Your task to perform on an android device: change the upload size in google photos Image 0: 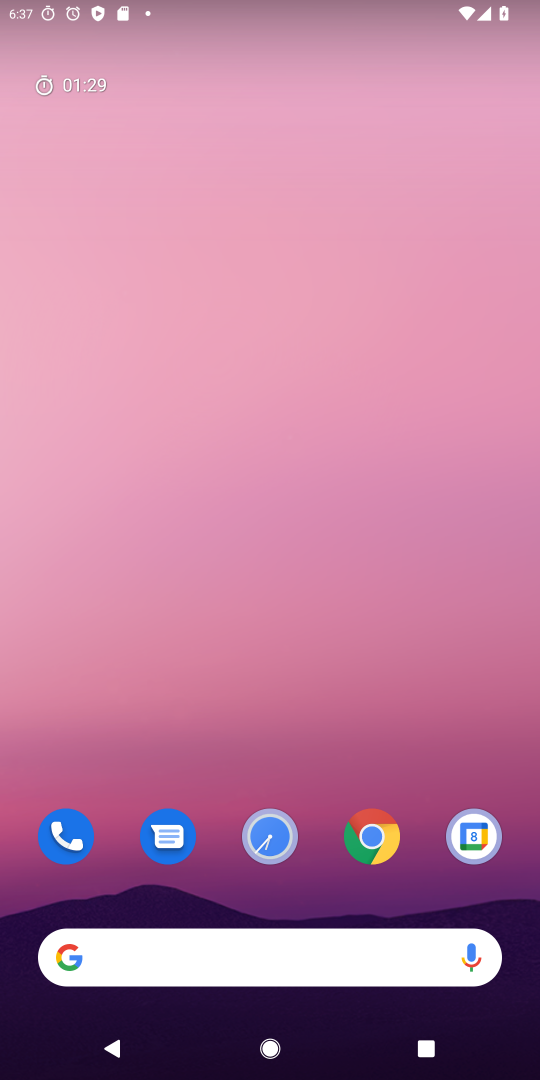
Step 0: drag from (219, 708) to (293, 88)
Your task to perform on an android device: change the upload size in google photos Image 1: 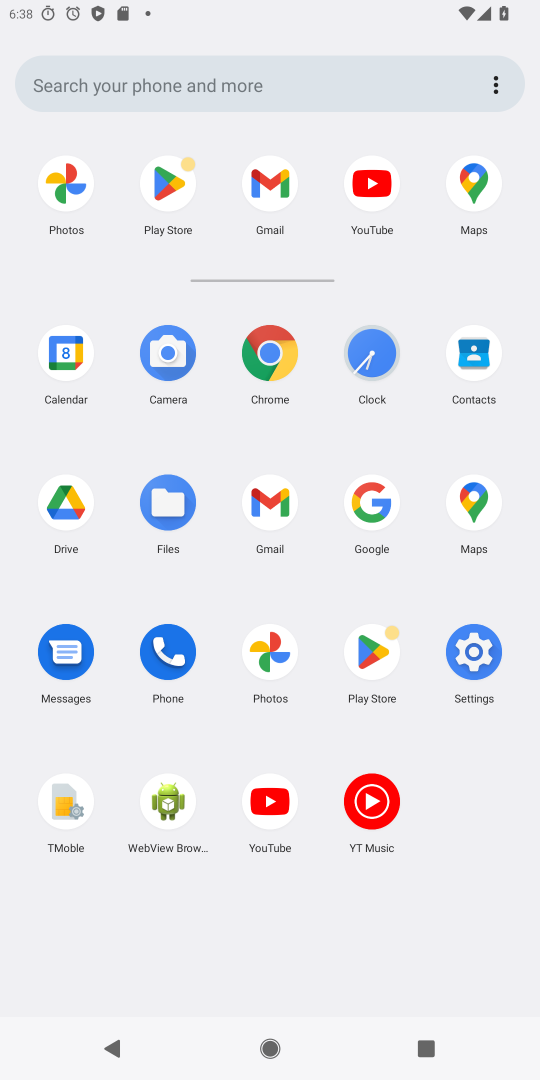
Step 1: click (277, 674)
Your task to perform on an android device: change the upload size in google photos Image 2: 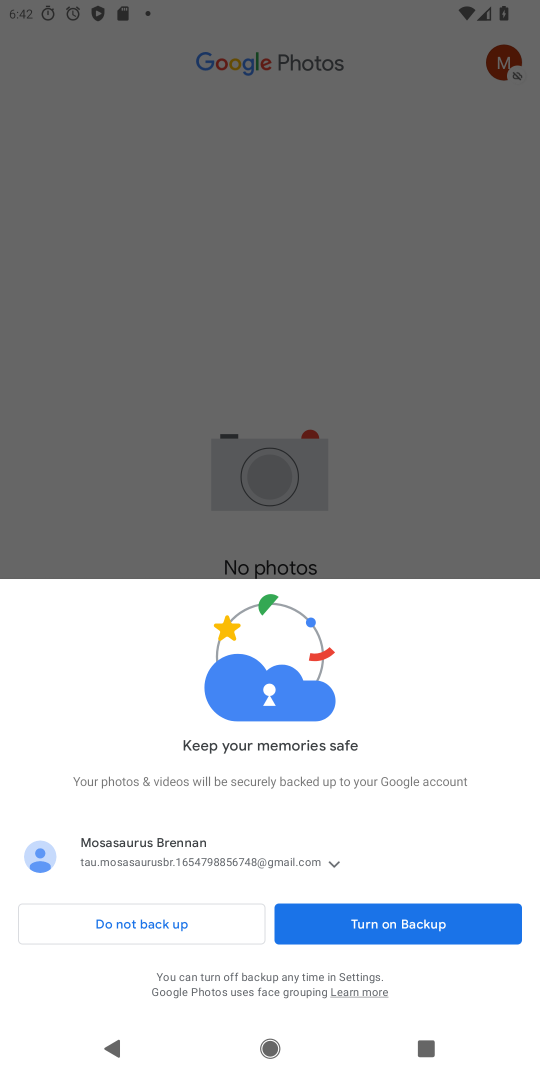
Step 2: click (455, 926)
Your task to perform on an android device: change the upload size in google photos Image 3: 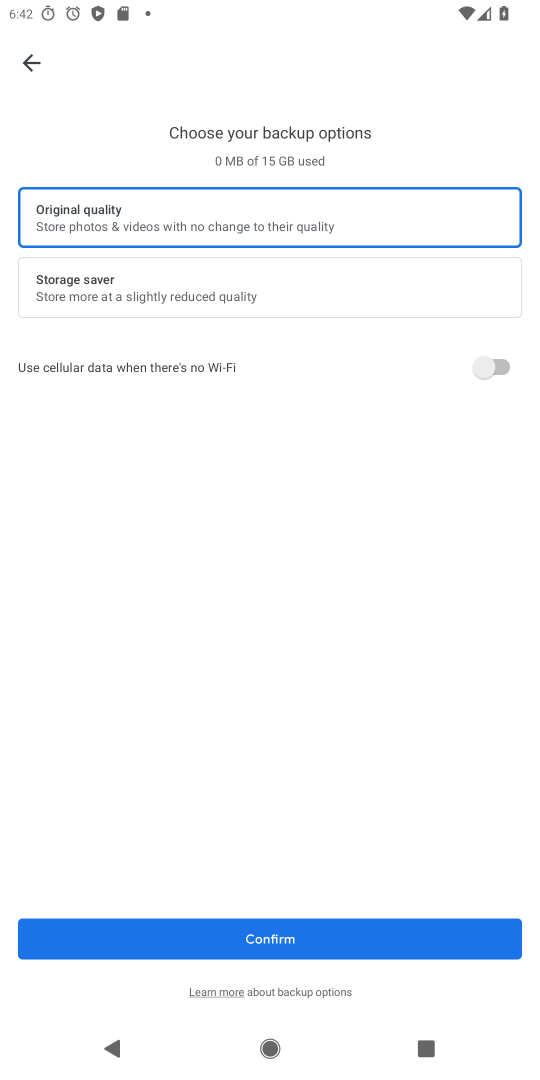
Step 3: click (249, 316)
Your task to perform on an android device: change the upload size in google photos Image 4: 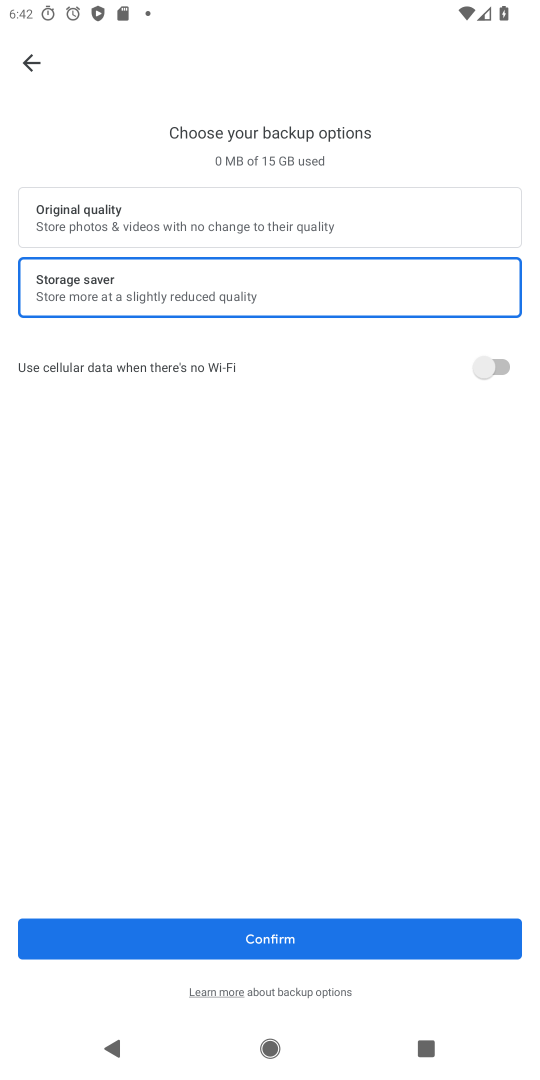
Step 4: press home button
Your task to perform on an android device: change the upload size in google photos Image 5: 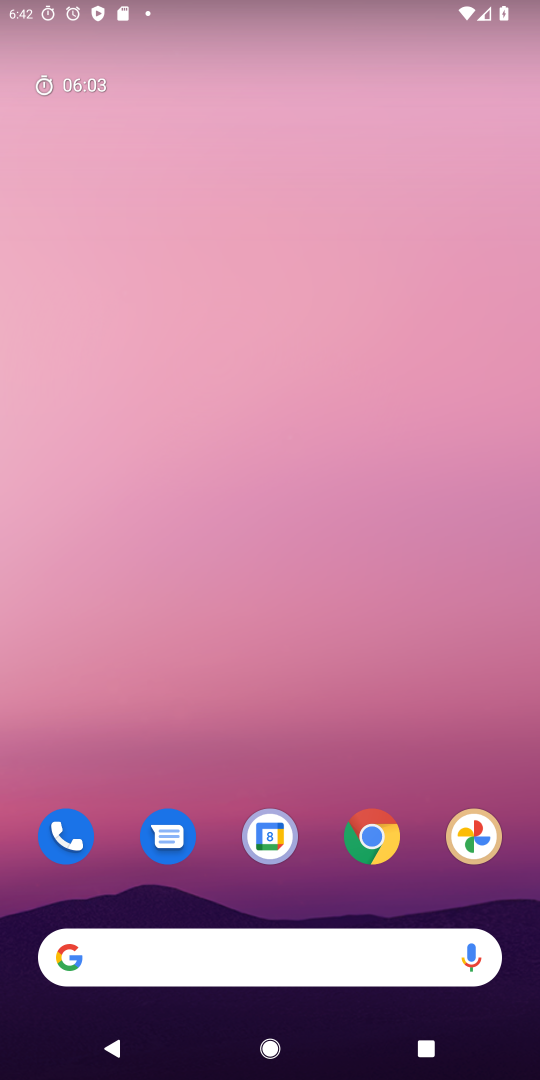
Step 5: drag from (353, 686) to (395, 2)
Your task to perform on an android device: change the upload size in google photos Image 6: 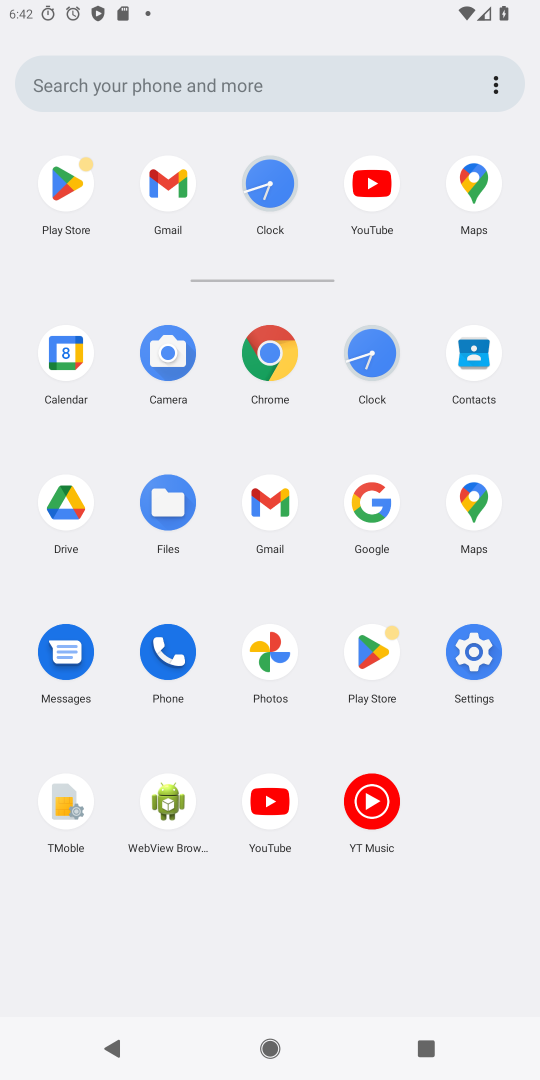
Step 6: click (269, 646)
Your task to perform on an android device: change the upload size in google photos Image 7: 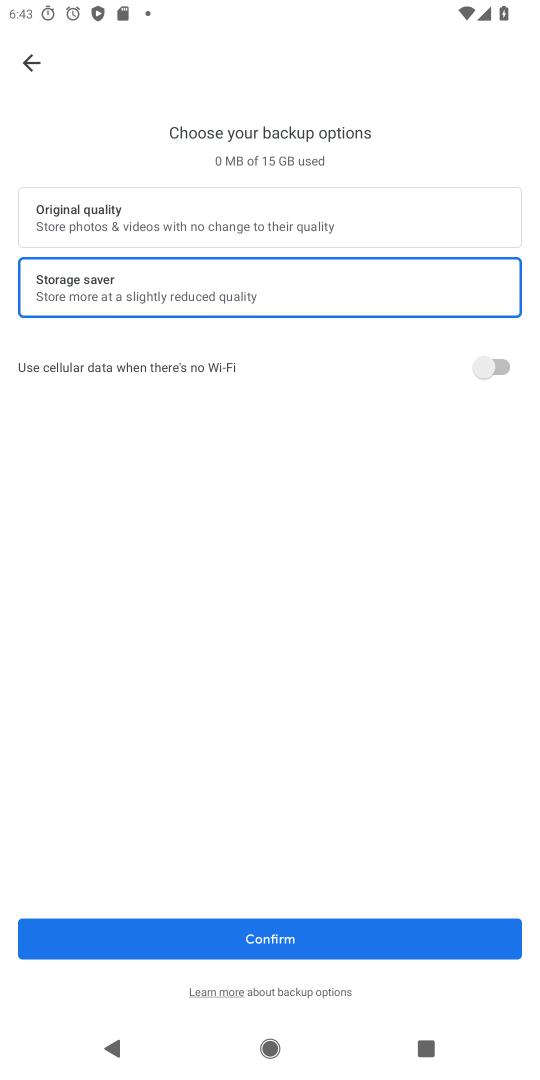
Step 7: press back button
Your task to perform on an android device: change the upload size in google photos Image 8: 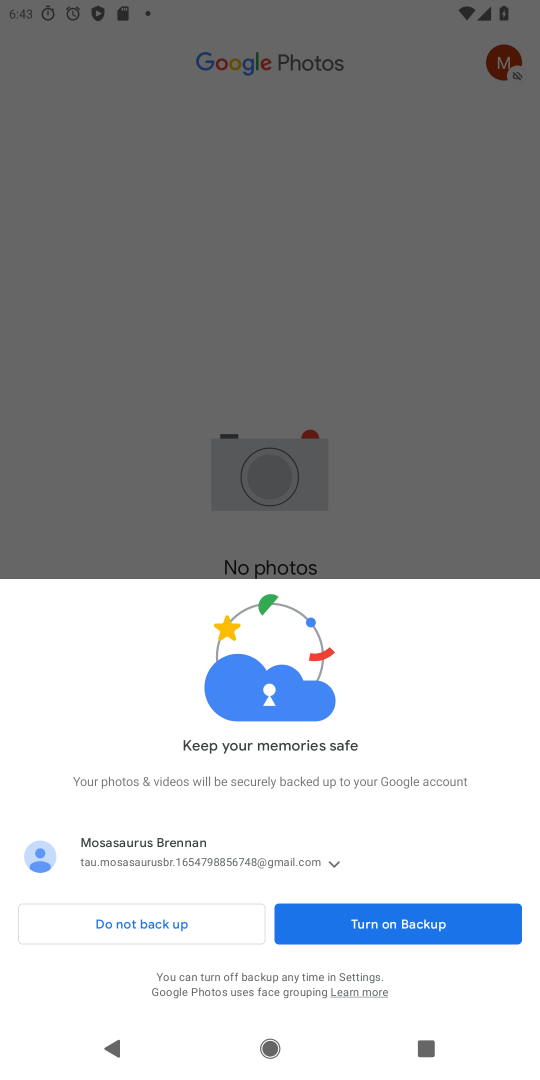
Step 8: click (430, 920)
Your task to perform on an android device: change the upload size in google photos Image 9: 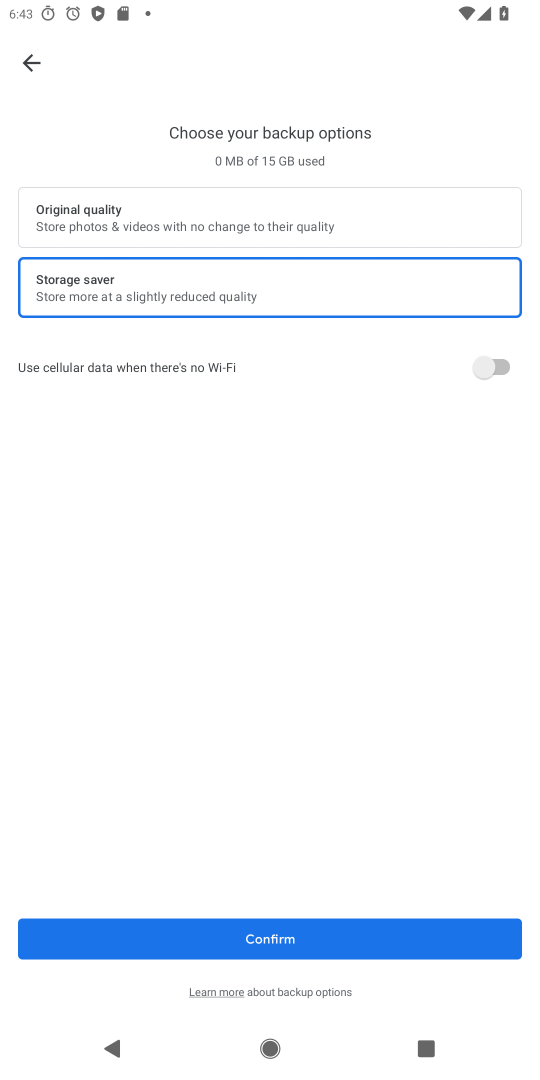
Step 9: click (316, 934)
Your task to perform on an android device: change the upload size in google photos Image 10: 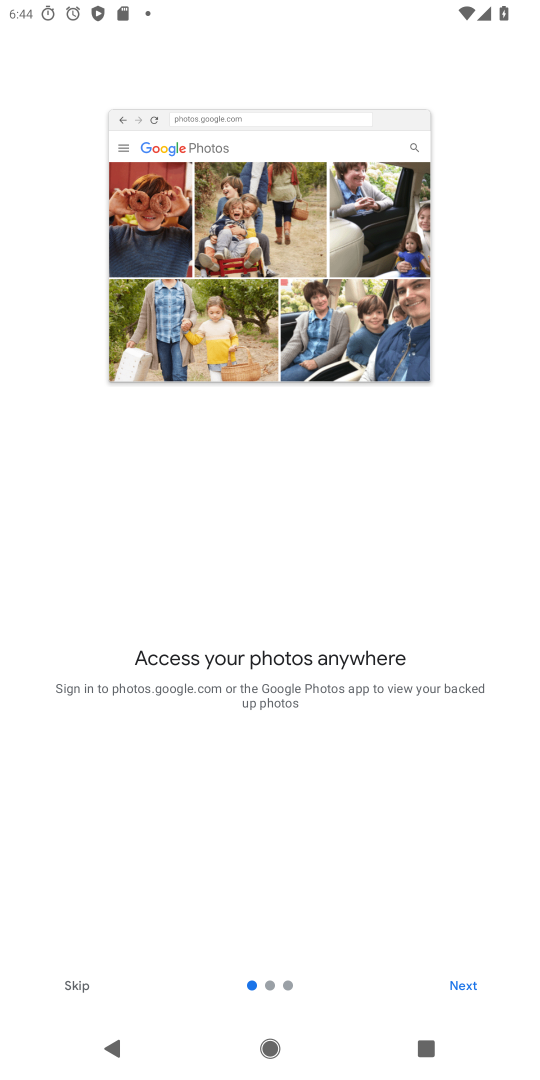
Step 10: click (85, 975)
Your task to perform on an android device: change the upload size in google photos Image 11: 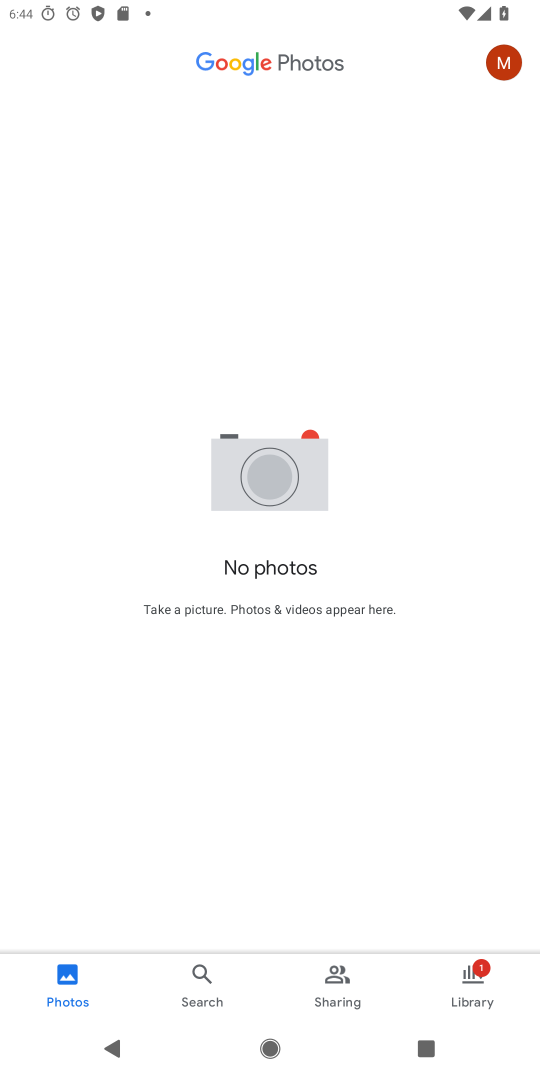
Step 11: click (499, 61)
Your task to perform on an android device: change the upload size in google photos Image 12: 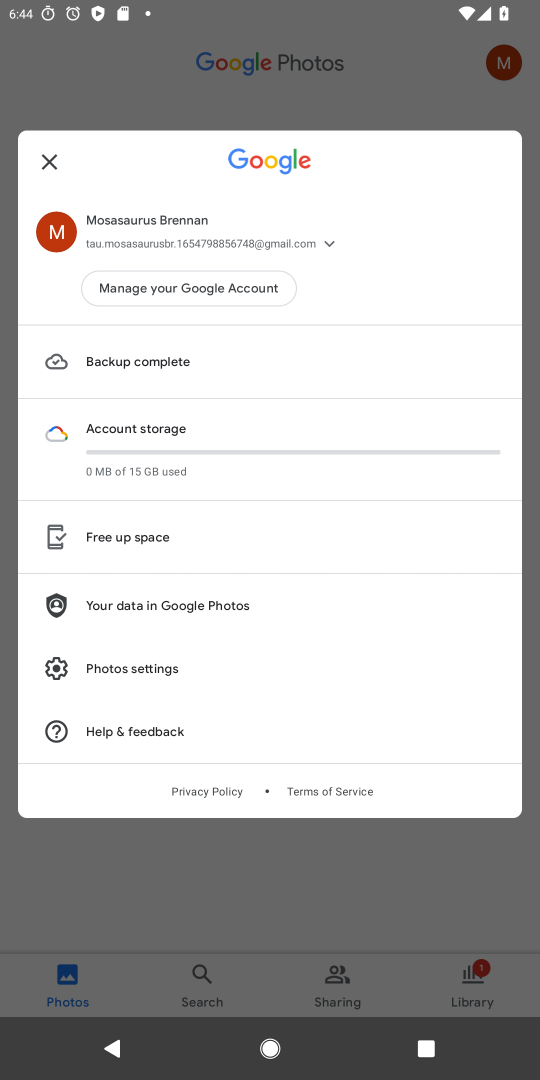
Step 12: click (163, 681)
Your task to perform on an android device: change the upload size in google photos Image 13: 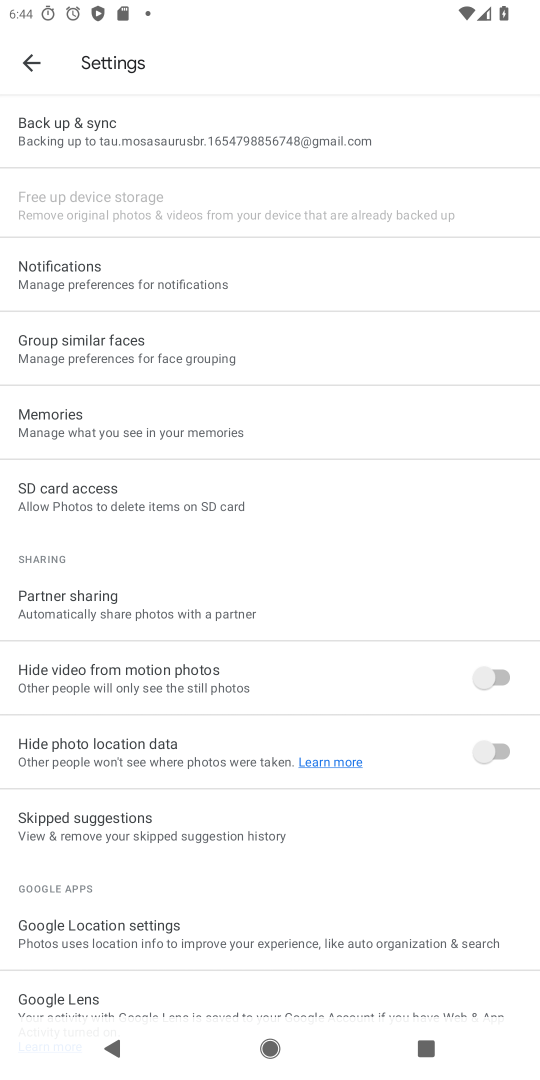
Step 13: drag from (198, 838) to (221, 892)
Your task to perform on an android device: change the upload size in google photos Image 14: 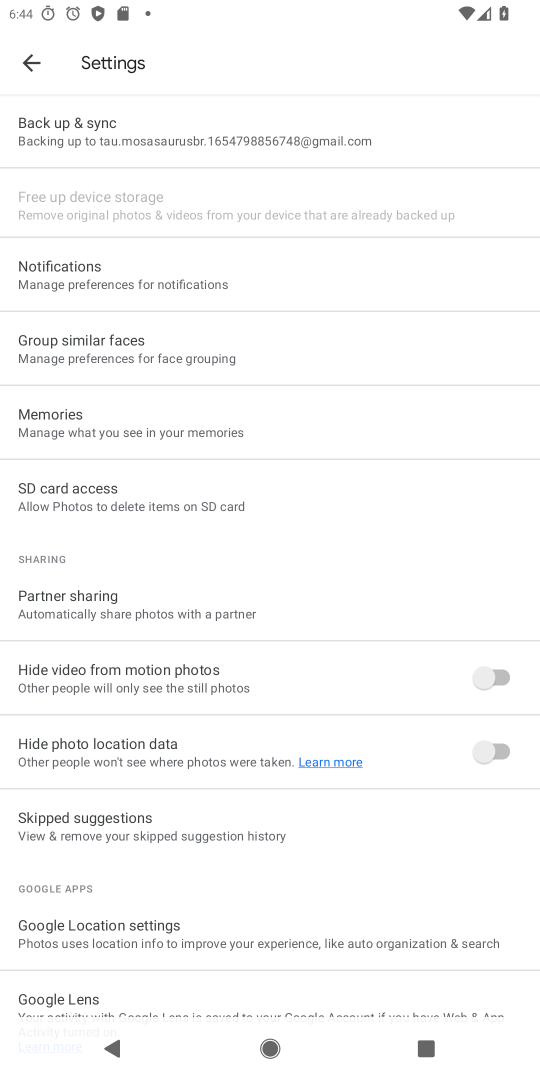
Step 14: click (164, 148)
Your task to perform on an android device: change the upload size in google photos Image 15: 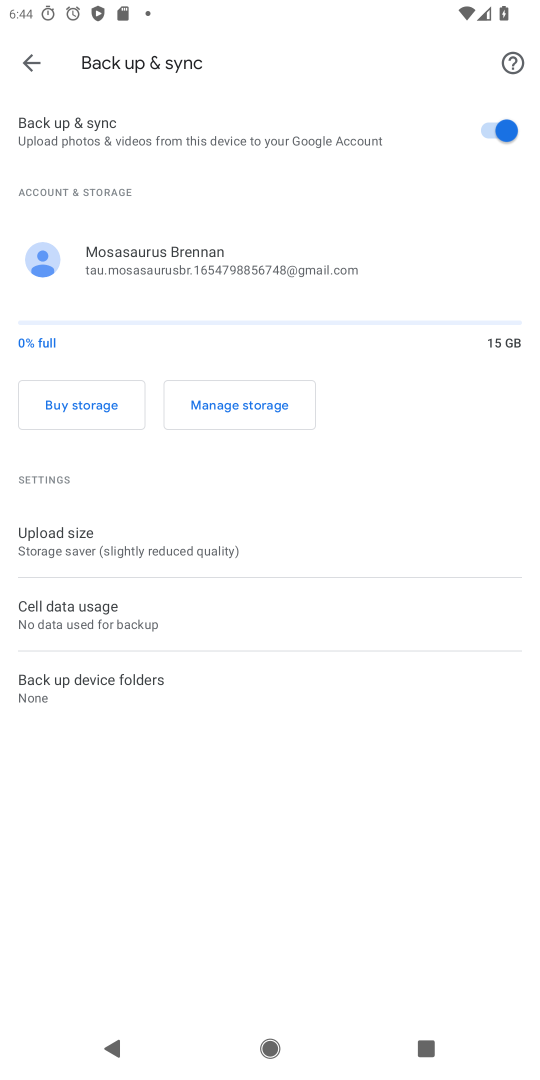
Step 15: click (159, 555)
Your task to perform on an android device: change the upload size in google photos Image 16: 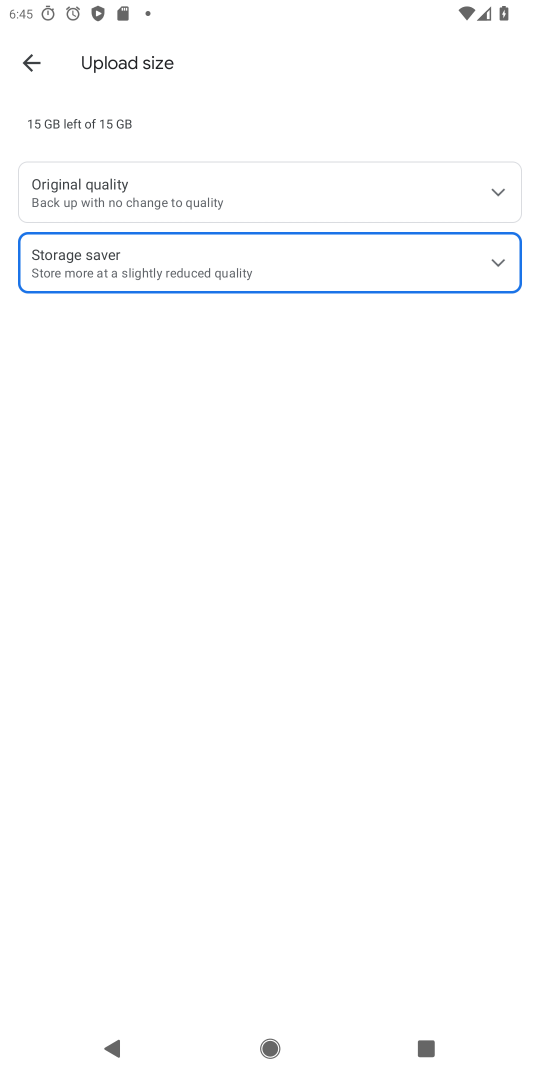
Step 16: click (216, 202)
Your task to perform on an android device: change the upload size in google photos Image 17: 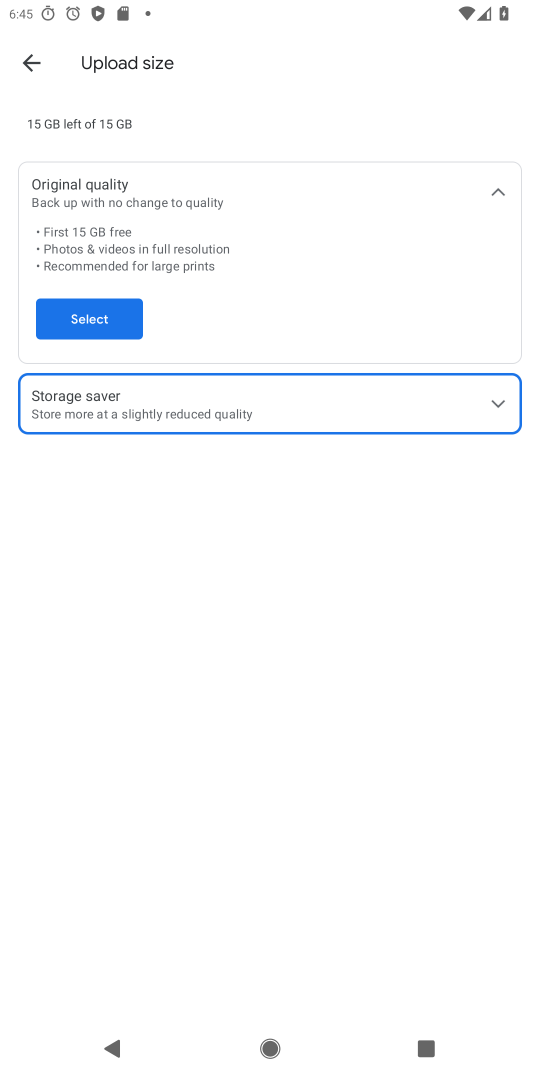
Step 17: click (116, 331)
Your task to perform on an android device: change the upload size in google photos Image 18: 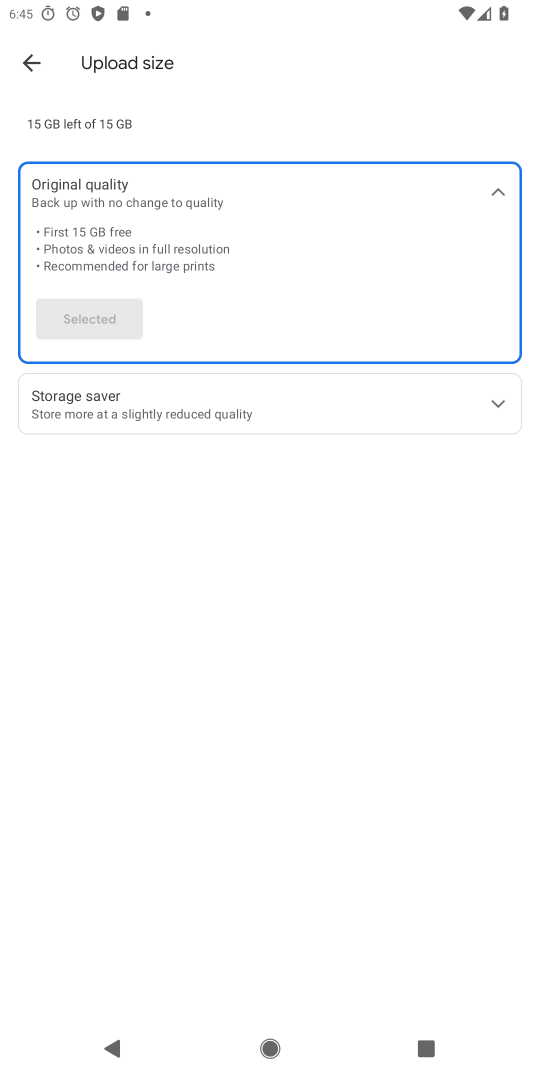
Step 18: task complete